Your task to perform on an android device: set the timer Image 0: 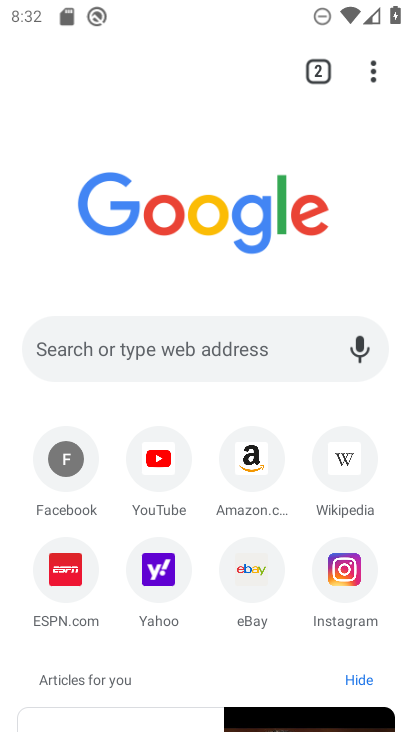
Step 0: press home button
Your task to perform on an android device: set the timer Image 1: 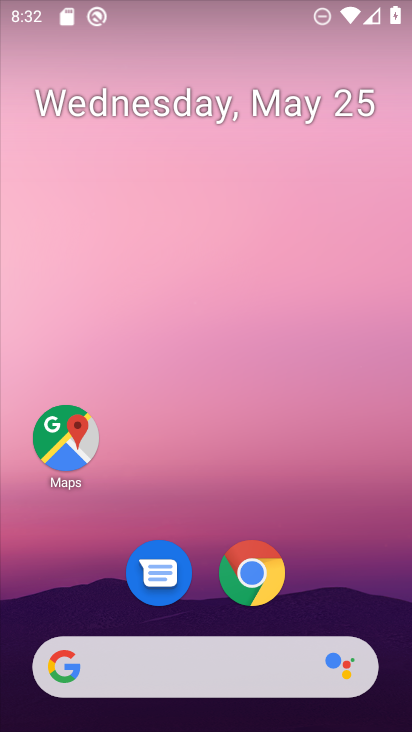
Step 1: drag from (398, 698) to (359, 117)
Your task to perform on an android device: set the timer Image 2: 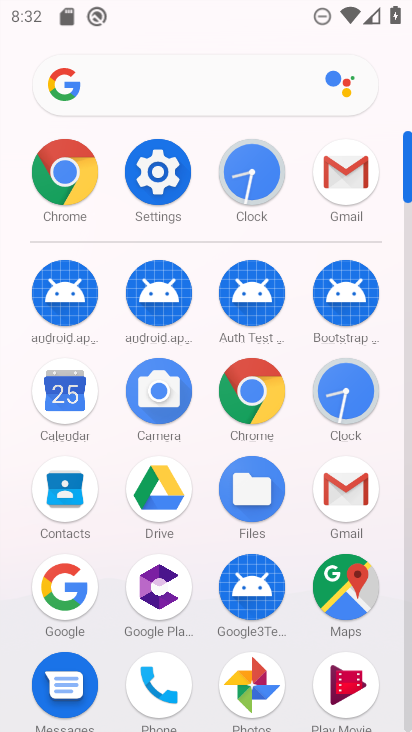
Step 2: click (345, 411)
Your task to perform on an android device: set the timer Image 3: 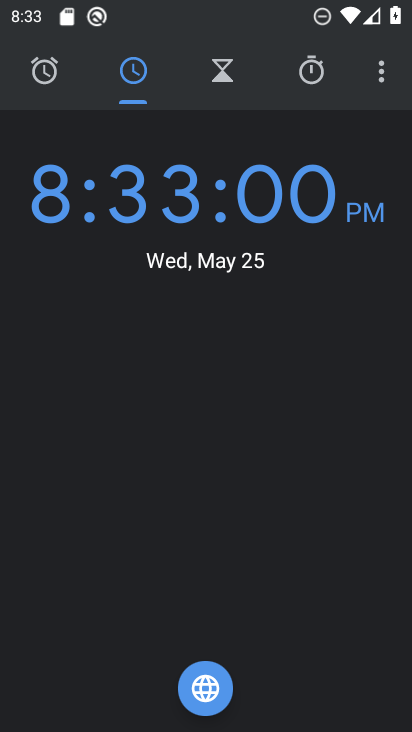
Step 3: click (308, 68)
Your task to perform on an android device: set the timer Image 4: 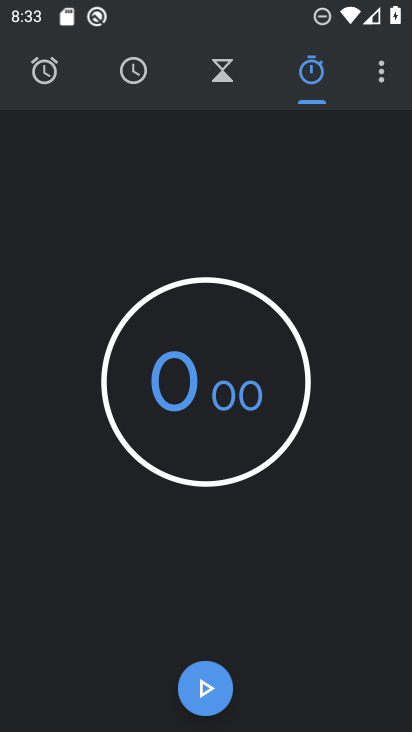
Step 4: click (205, 705)
Your task to perform on an android device: set the timer Image 5: 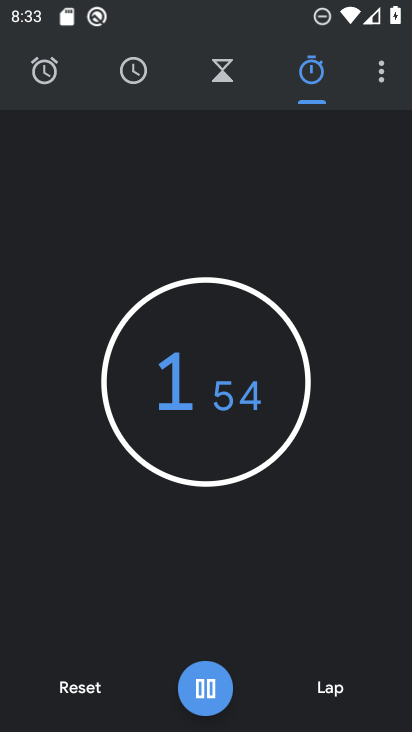
Step 5: task complete